Your task to perform on an android device: Open sound settings Image 0: 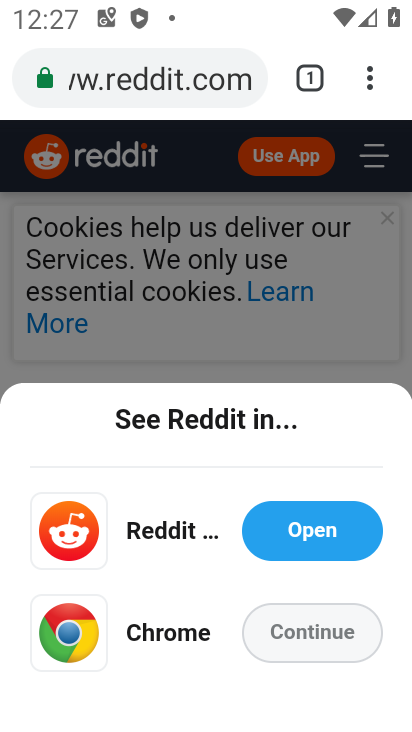
Step 0: press back button
Your task to perform on an android device: Open sound settings Image 1: 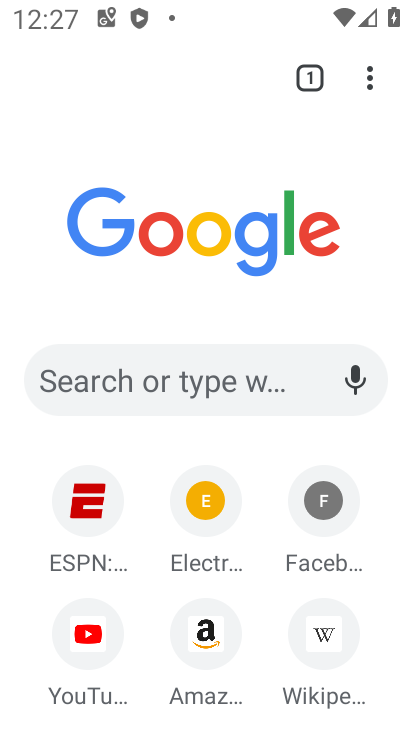
Step 1: press back button
Your task to perform on an android device: Open sound settings Image 2: 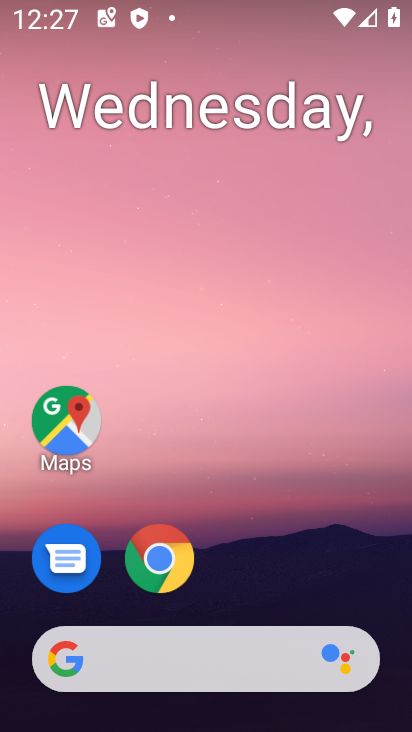
Step 2: drag from (278, 469) to (343, 46)
Your task to perform on an android device: Open sound settings Image 3: 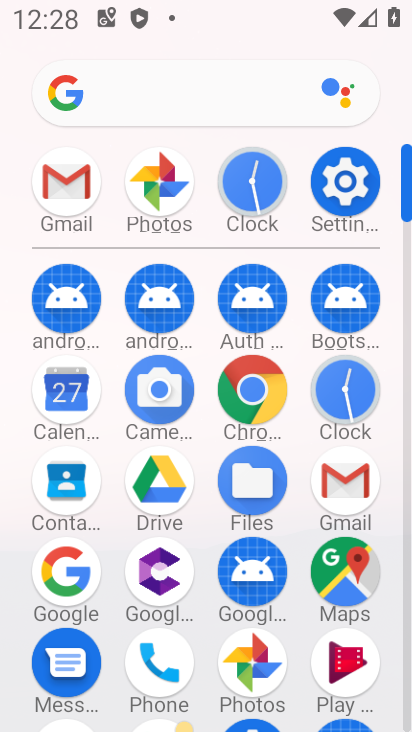
Step 3: click (331, 203)
Your task to perform on an android device: Open sound settings Image 4: 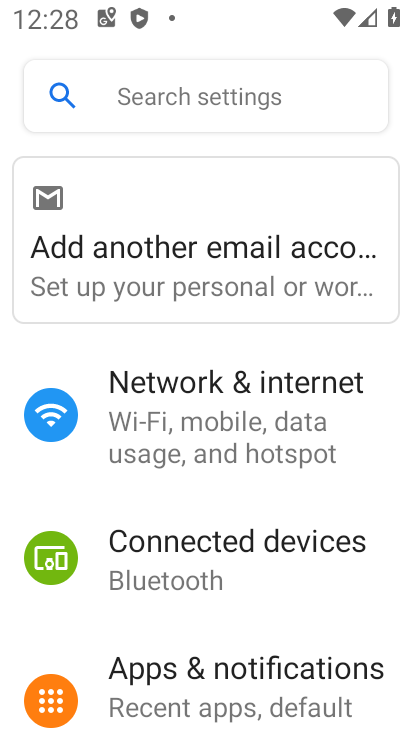
Step 4: drag from (197, 669) to (243, 142)
Your task to perform on an android device: Open sound settings Image 5: 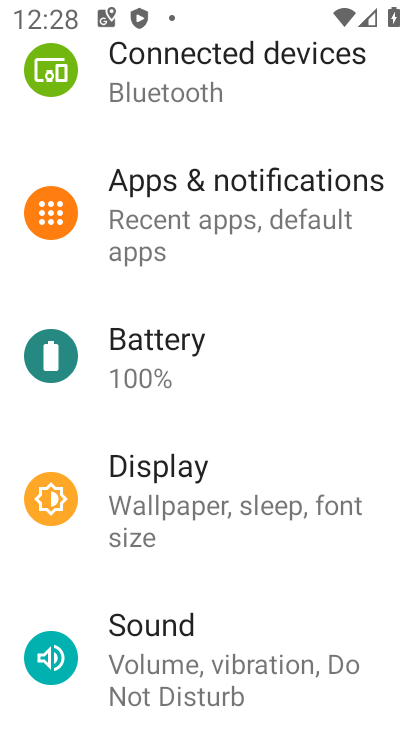
Step 5: click (171, 660)
Your task to perform on an android device: Open sound settings Image 6: 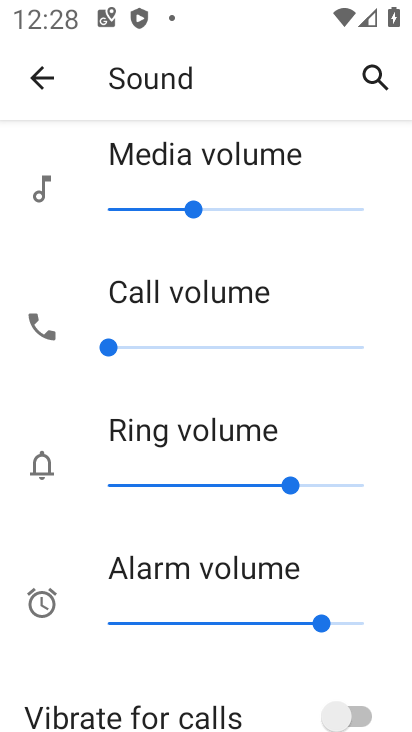
Step 6: task complete